Your task to perform on an android device: open device folders in google photos Image 0: 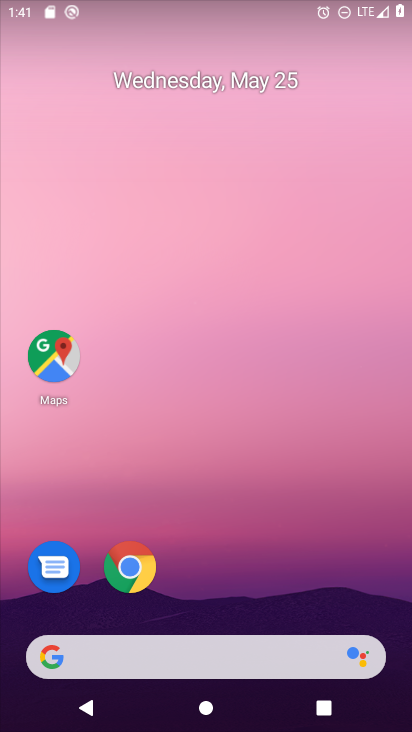
Step 0: drag from (392, 657) to (357, 128)
Your task to perform on an android device: open device folders in google photos Image 1: 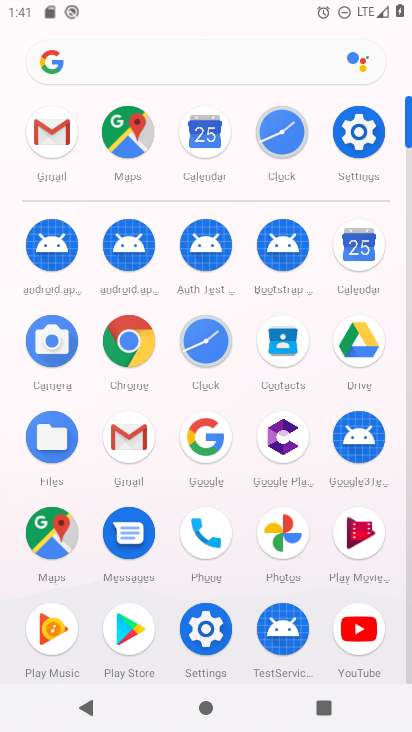
Step 1: click (275, 532)
Your task to perform on an android device: open device folders in google photos Image 2: 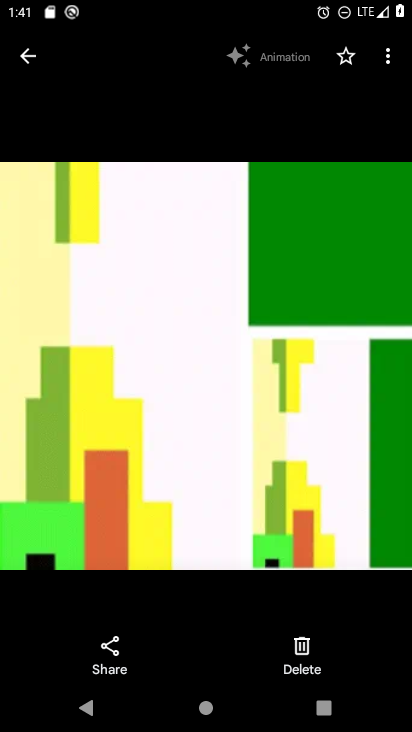
Step 2: click (35, 62)
Your task to perform on an android device: open device folders in google photos Image 3: 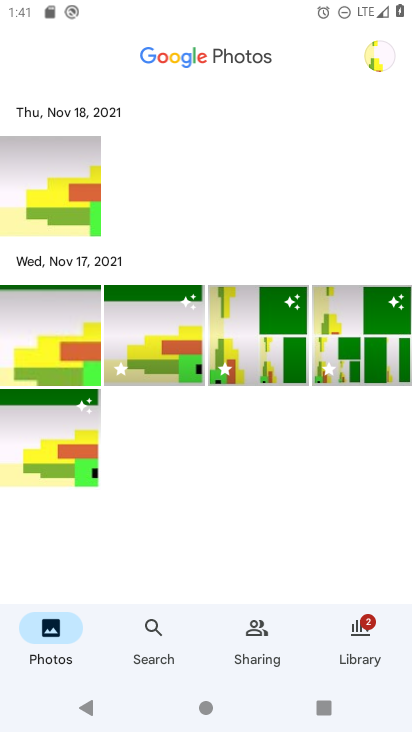
Step 3: task complete